Your task to perform on an android device: set the stopwatch Image 0: 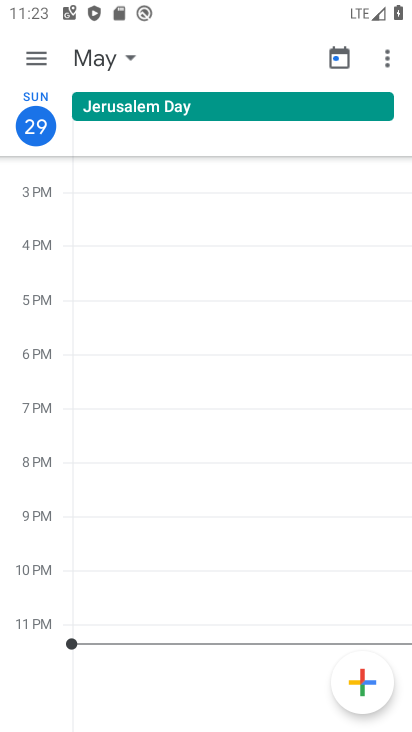
Step 0: press home button
Your task to perform on an android device: set the stopwatch Image 1: 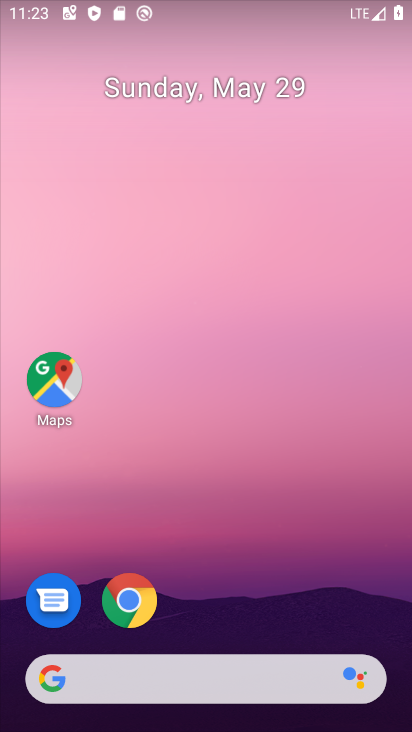
Step 1: drag from (271, 574) to (297, 359)
Your task to perform on an android device: set the stopwatch Image 2: 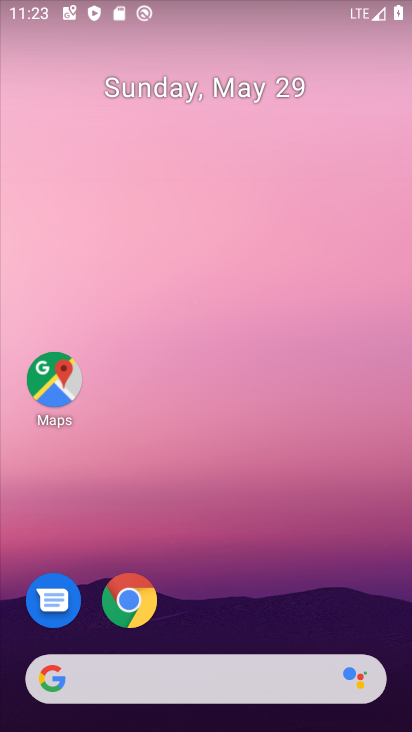
Step 2: drag from (359, 538) to (338, 53)
Your task to perform on an android device: set the stopwatch Image 3: 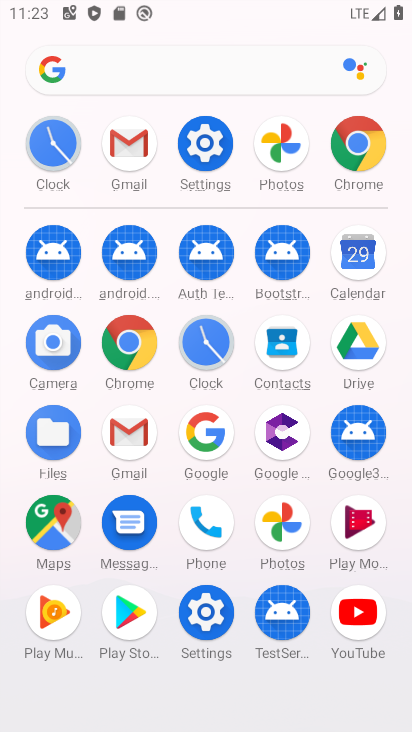
Step 3: click (68, 142)
Your task to perform on an android device: set the stopwatch Image 4: 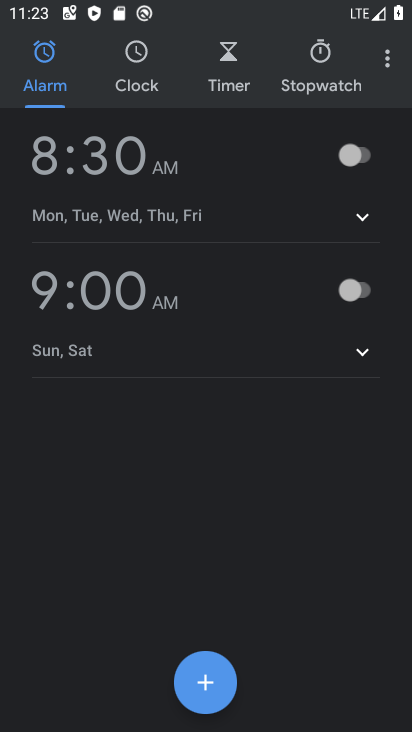
Step 4: click (327, 83)
Your task to perform on an android device: set the stopwatch Image 5: 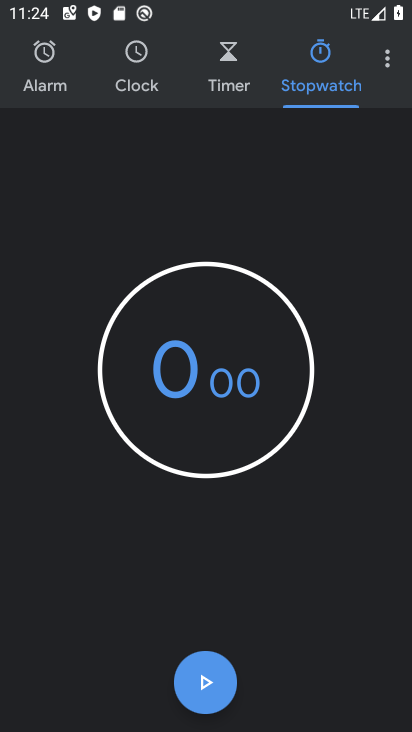
Step 5: click (184, 682)
Your task to perform on an android device: set the stopwatch Image 6: 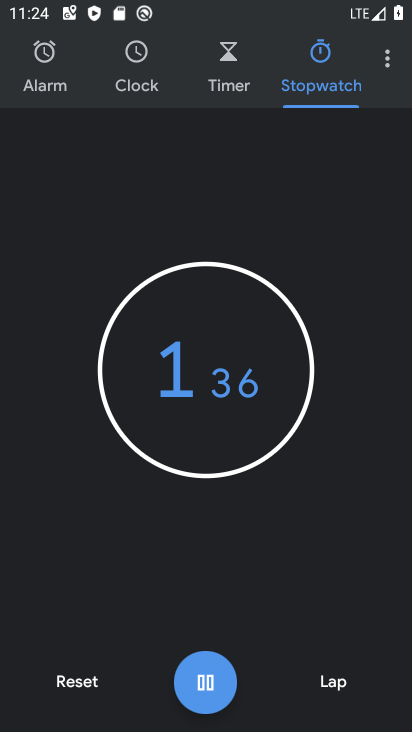
Step 6: task complete